Your task to perform on an android device: check google app version Image 0: 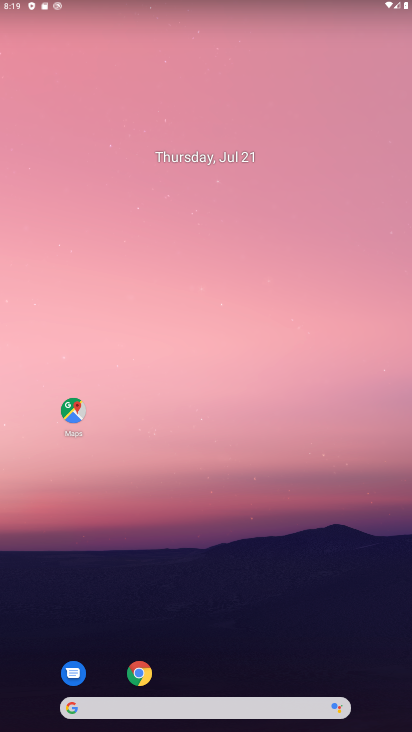
Step 0: drag from (167, 675) to (204, 155)
Your task to perform on an android device: check google app version Image 1: 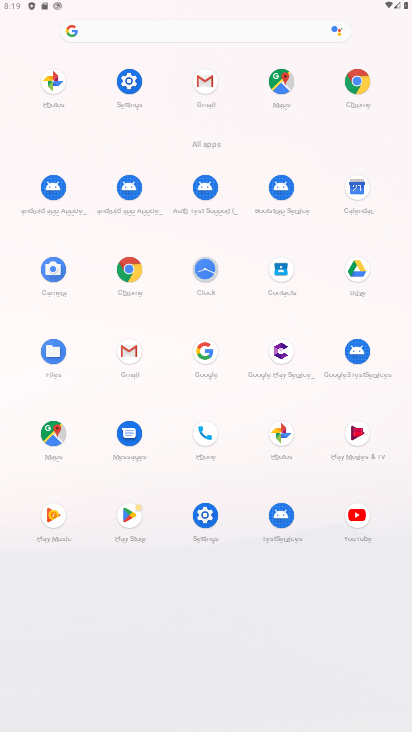
Step 1: click (206, 349)
Your task to perform on an android device: check google app version Image 2: 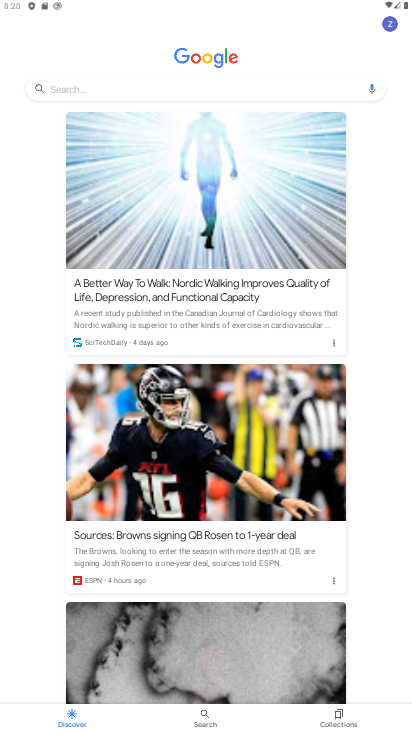
Step 2: click (386, 31)
Your task to perform on an android device: check google app version Image 3: 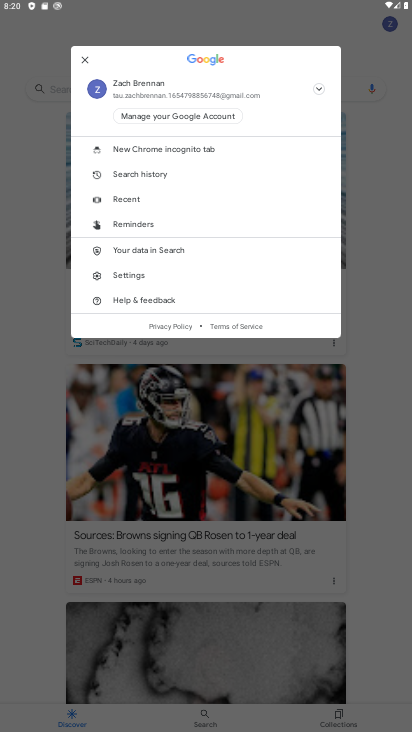
Step 3: click (124, 275)
Your task to perform on an android device: check google app version Image 4: 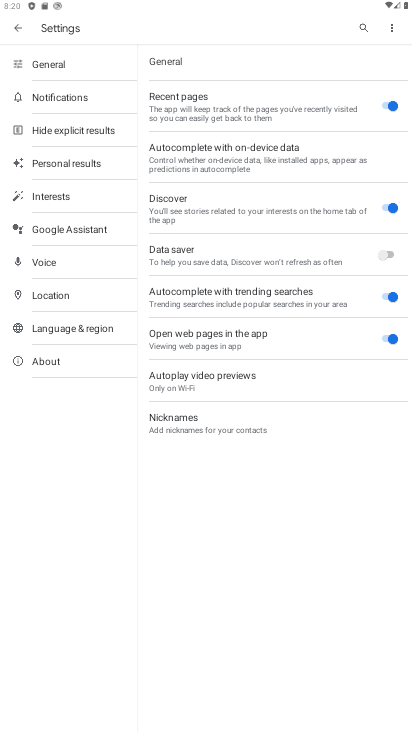
Step 4: click (57, 361)
Your task to perform on an android device: check google app version Image 5: 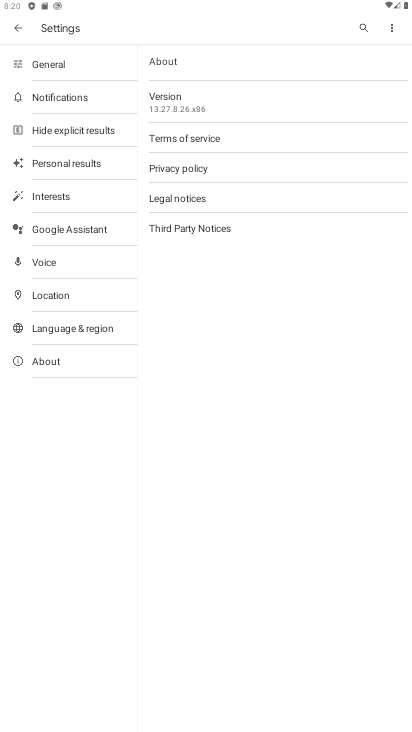
Step 5: click (201, 64)
Your task to perform on an android device: check google app version Image 6: 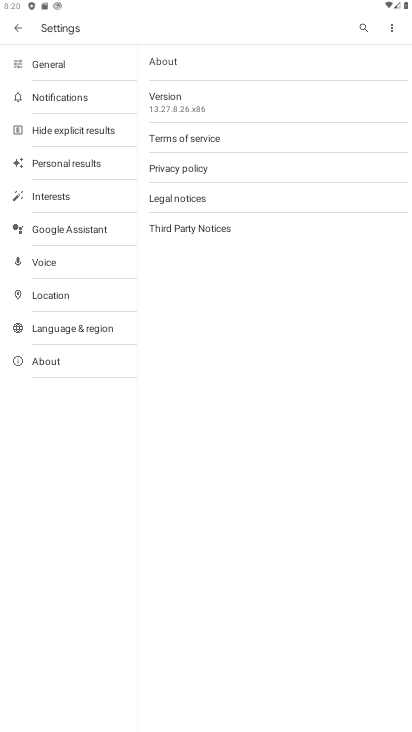
Step 6: click (195, 95)
Your task to perform on an android device: check google app version Image 7: 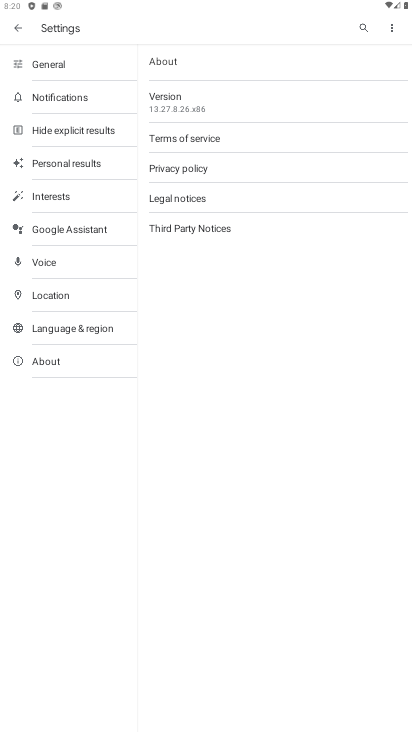
Step 7: task complete